Your task to perform on an android device: Go to Yahoo.com Image 0: 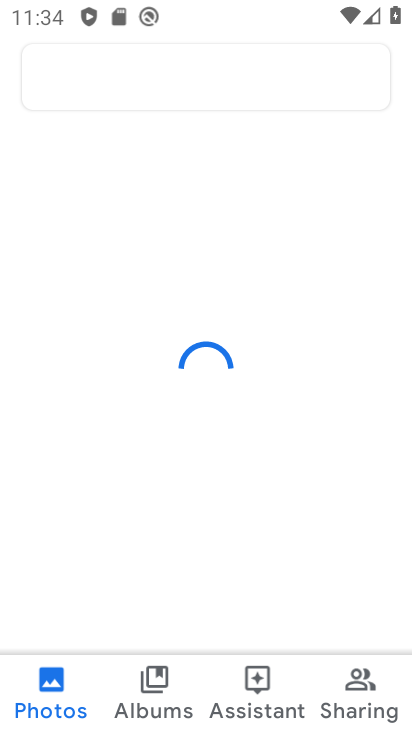
Step 0: press home button
Your task to perform on an android device: Go to Yahoo.com Image 1: 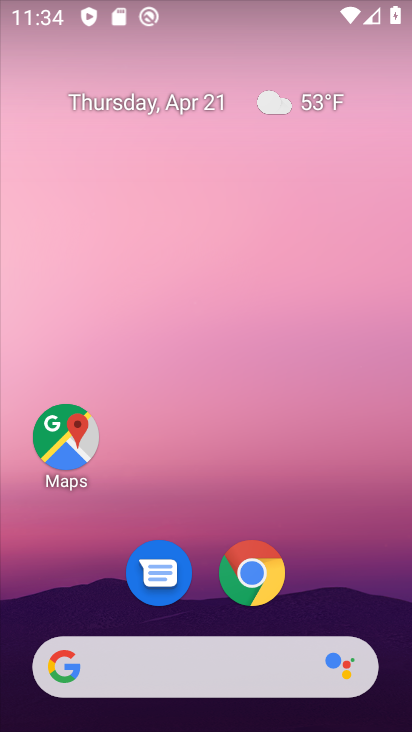
Step 1: drag from (195, 654) to (307, 48)
Your task to perform on an android device: Go to Yahoo.com Image 2: 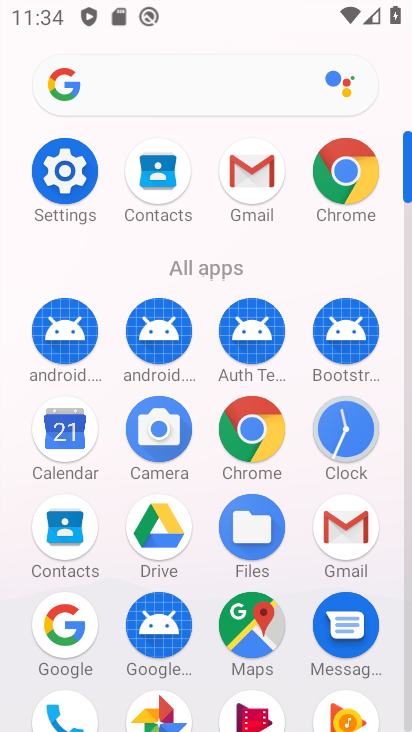
Step 2: click (345, 177)
Your task to perform on an android device: Go to Yahoo.com Image 3: 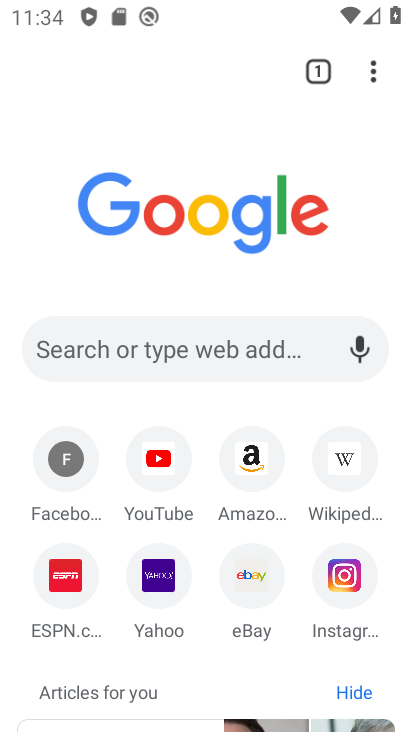
Step 3: click (159, 578)
Your task to perform on an android device: Go to Yahoo.com Image 4: 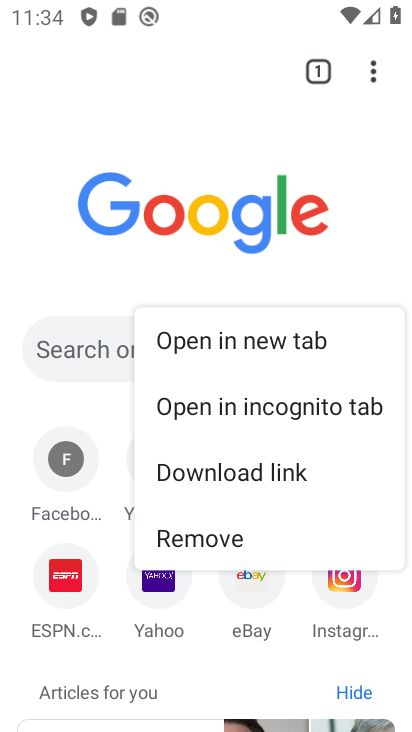
Step 4: click (149, 583)
Your task to perform on an android device: Go to Yahoo.com Image 5: 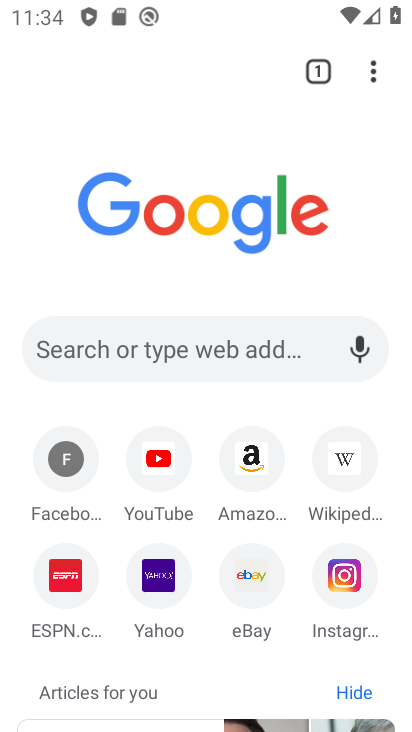
Step 5: click (159, 580)
Your task to perform on an android device: Go to Yahoo.com Image 6: 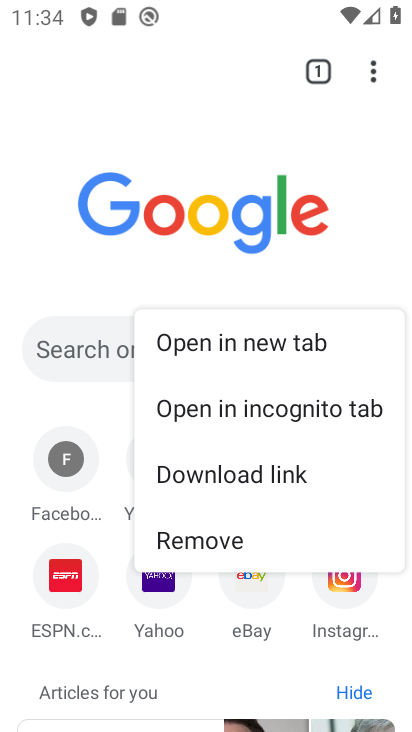
Step 6: click (153, 593)
Your task to perform on an android device: Go to Yahoo.com Image 7: 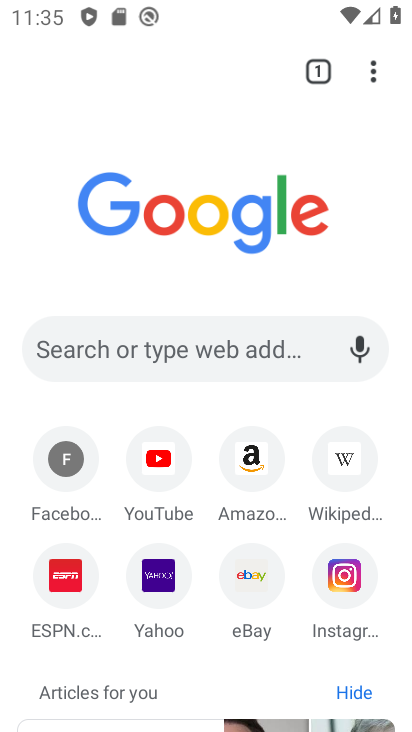
Step 7: click (157, 578)
Your task to perform on an android device: Go to Yahoo.com Image 8: 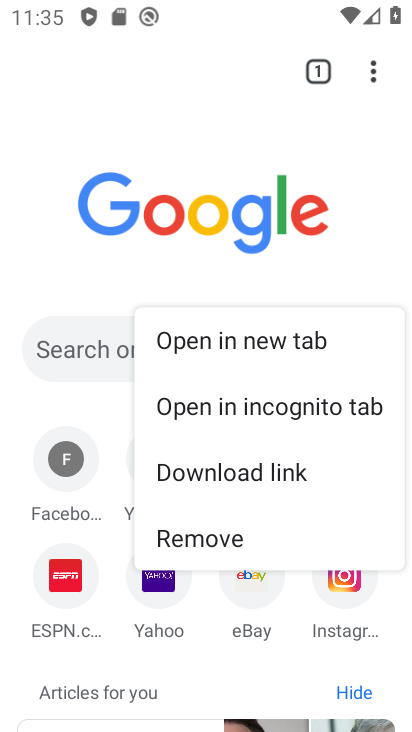
Step 8: click (163, 588)
Your task to perform on an android device: Go to Yahoo.com Image 9: 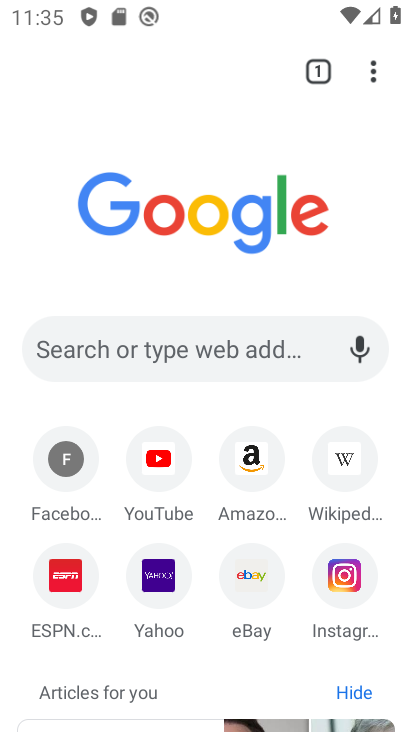
Step 9: click (159, 571)
Your task to perform on an android device: Go to Yahoo.com Image 10: 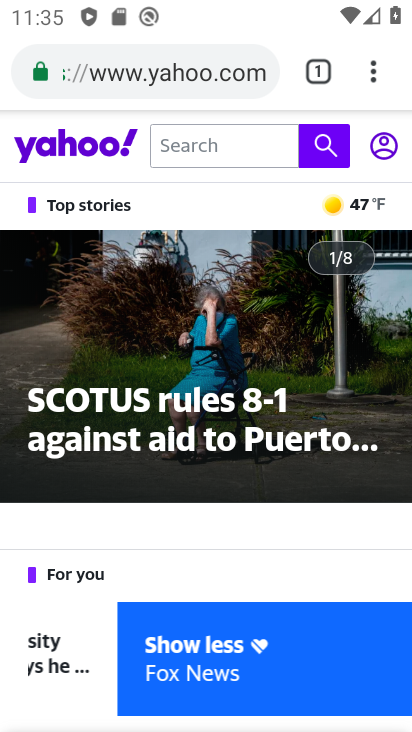
Step 10: task complete